Your task to perform on an android device: toggle notification dots Image 0: 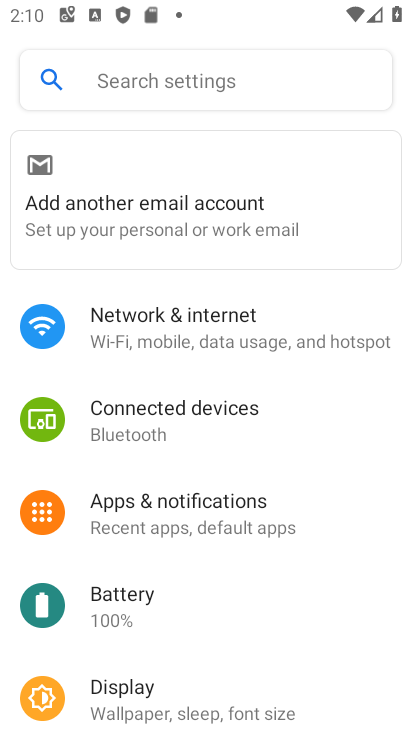
Step 0: click (191, 506)
Your task to perform on an android device: toggle notification dots Image 1: 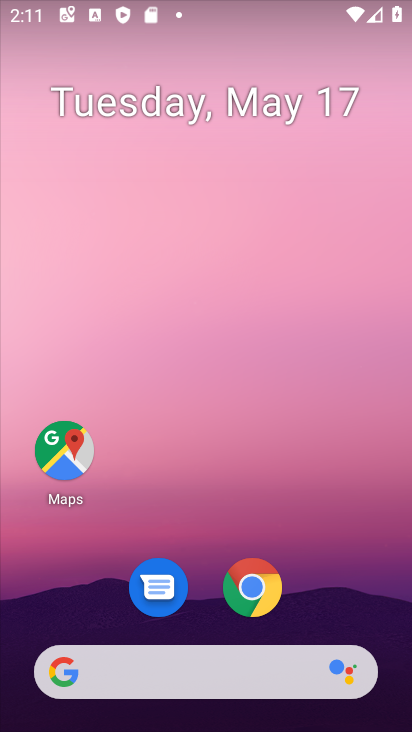
Step 1: drag from (195, 610) to (233, 240)
Your task to perform on an android device: toggle notification dots Image 2: 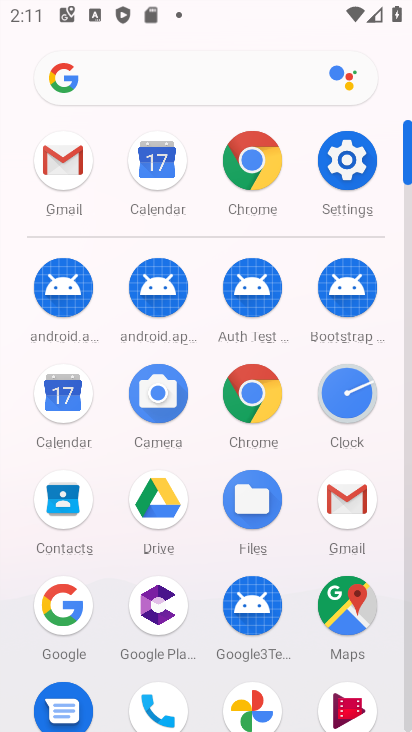
Step 2: click (352, 161)
Your task to perform on an android device: toggle notification dots Image 3: 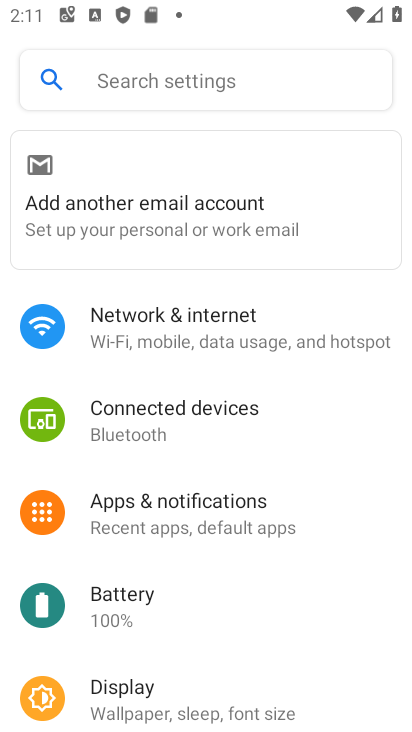
Step 3: click (179, 508)
Your task to perform on an android device: toggle notification dots Image 4: 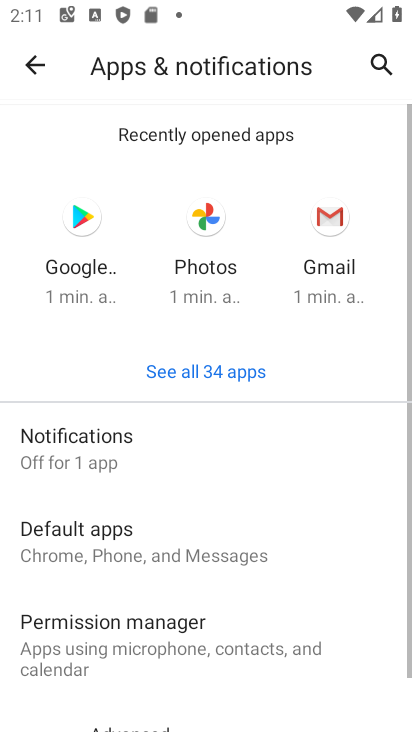
Step 4: drag from (246, 630) to (302, 189)
Your task to perform on an android device: toggle notification dots Image 5: 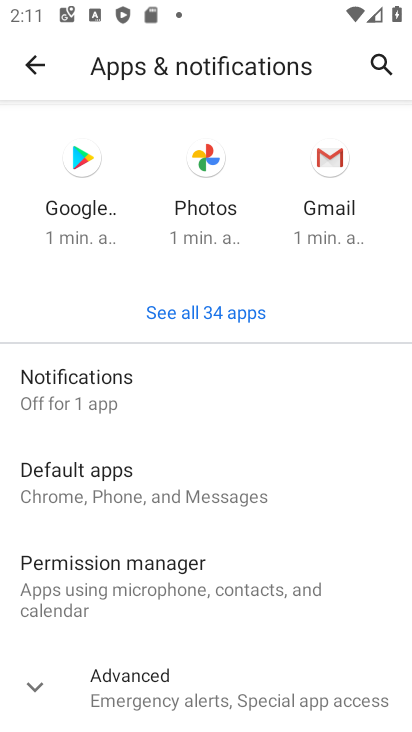
Step 5: click (145, 380)
Your task to perform on an android device: toggle notification dots Image 6: 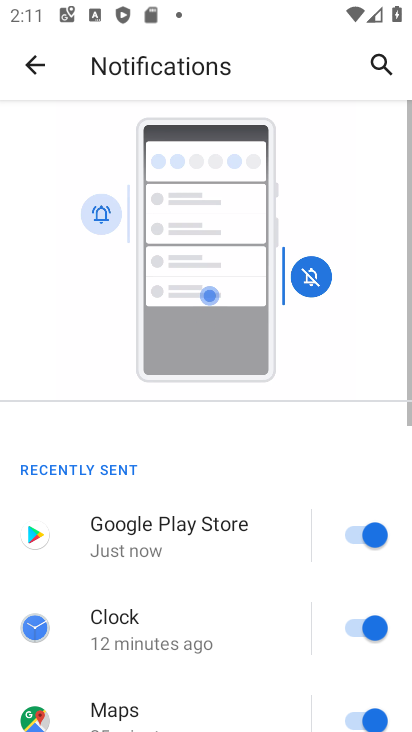
Step 6: drag from (240, 541) to (309, 117)
Your task to perform on an android device: toggle notification dots Image 7: 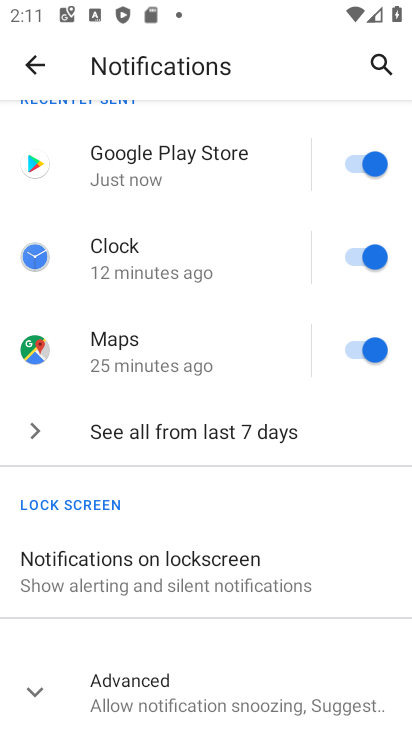
Step 7: click (205, 690)
Your task to perform on an android device: toggle notification dots Image 8: 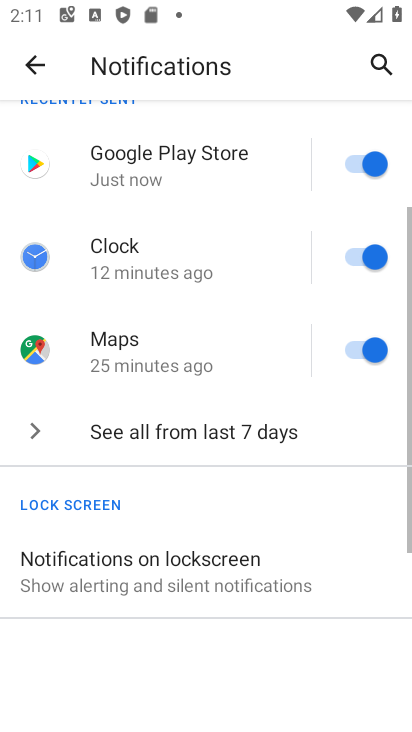
Step 8: drag from (210, 678) to (285, 131)
Your task to perform on an android device: toggle notification dots Image 9: 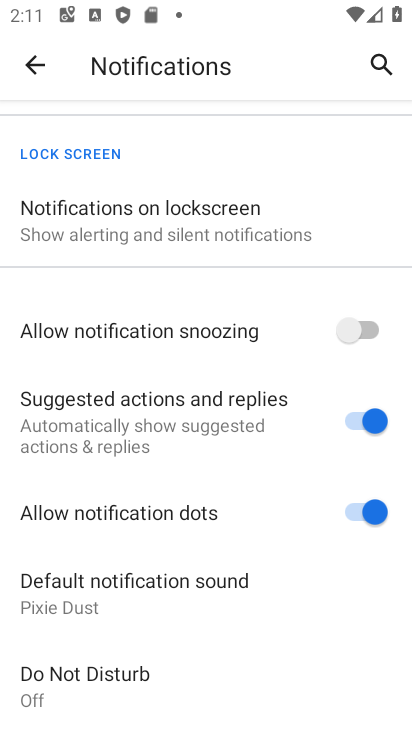
Step 9: click (356, 506)
Your task to perform on an android device: toggle notification dots Image 10: 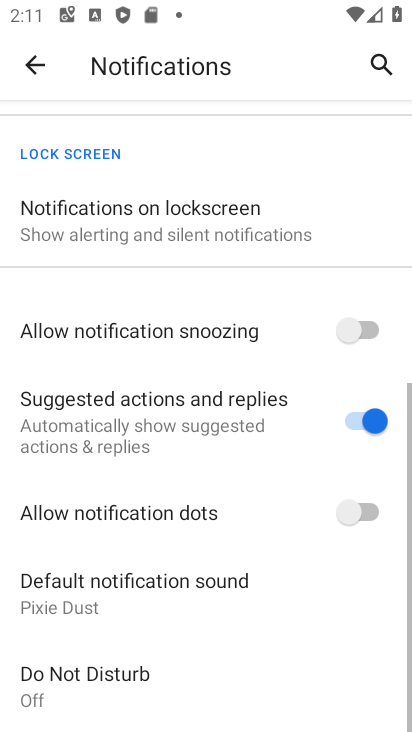
Step 10: task complete